Your task to perform on an android device: turn on translation in the chrome app Image 0: 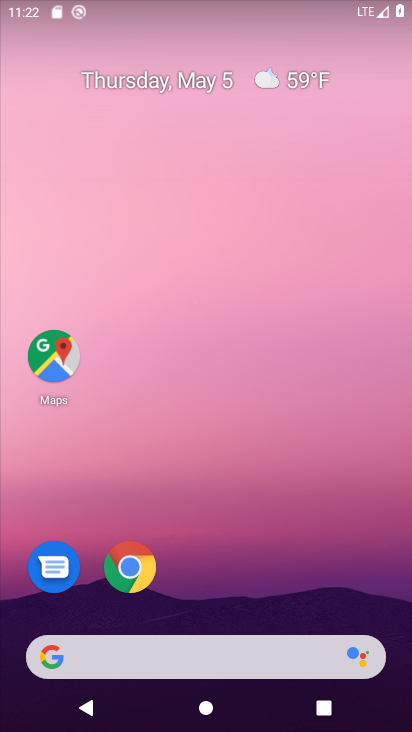
Step 0: click (144, 572)
Your task to perform on an android device: turn on translation in the chrome app Image 1: 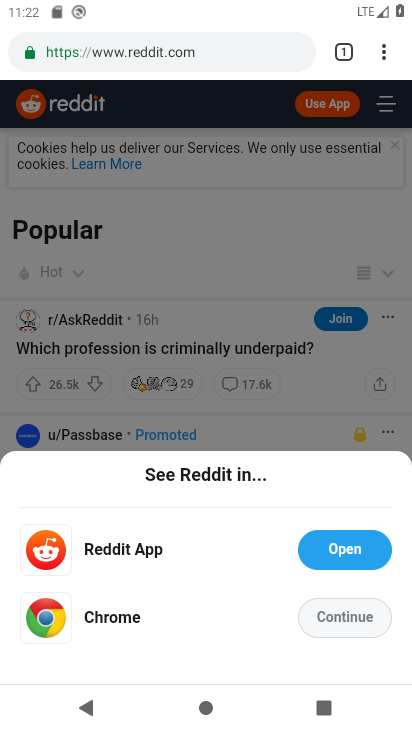
Step 1: drag from (387, 53) to (216, 614)
Your task to perform on an android device: turn on translation in the chrome app Image 2: 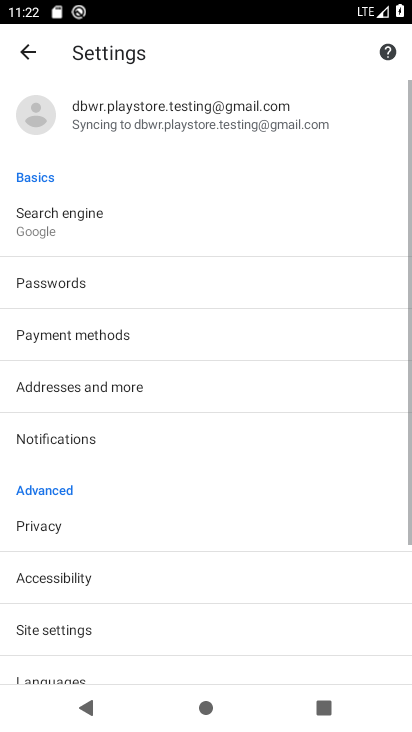
Step 2: drag from (205, 603) to (198, 398)
Your task to perform on an android device: turn on translation in the chrome app Image 3: 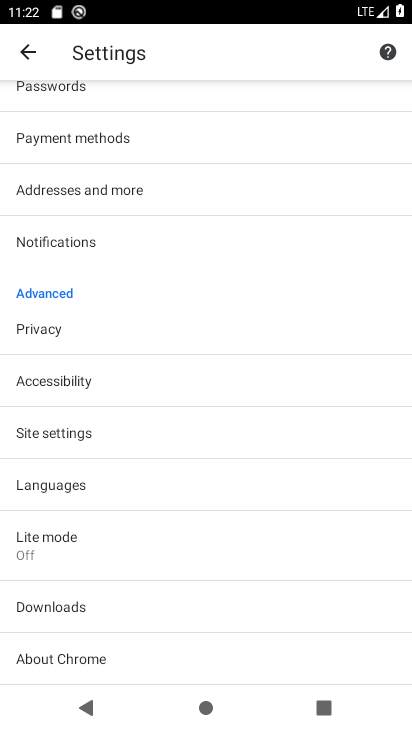
Step 3: click (67, 482)
Your task to perform on an android device: turn on translation in the chrome app Image 4: 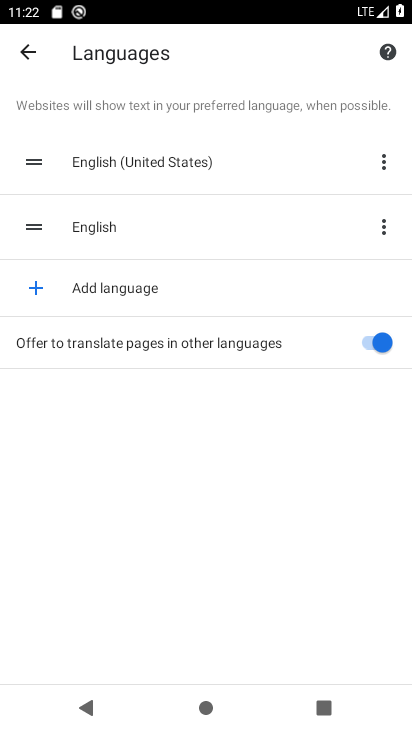
Step 4: task complete